Your task to perform on an android device: toggle location history Image 0: 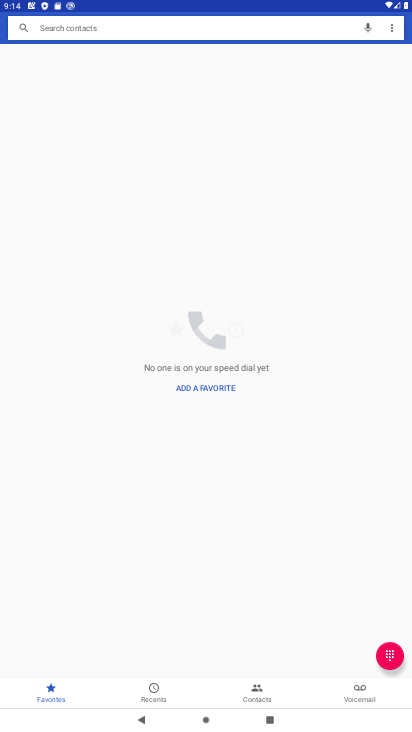
Step 0: press home button
Your task to perform on an android device: toggle location history Image 1: 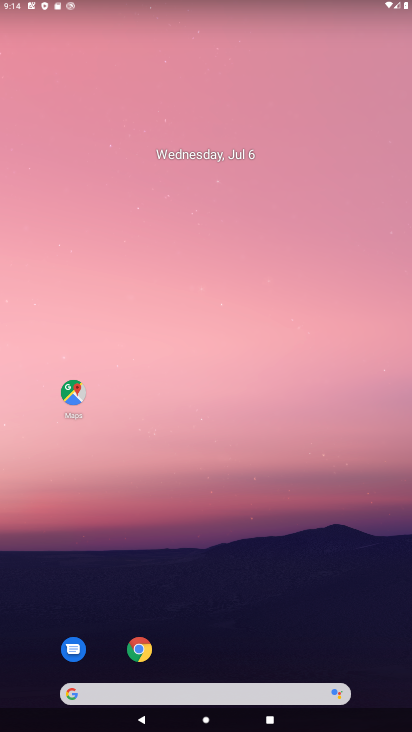
Step 1: drag from (221, 641) to (158, 192)
Your task to perform on an android device: toggle location history Image 2: 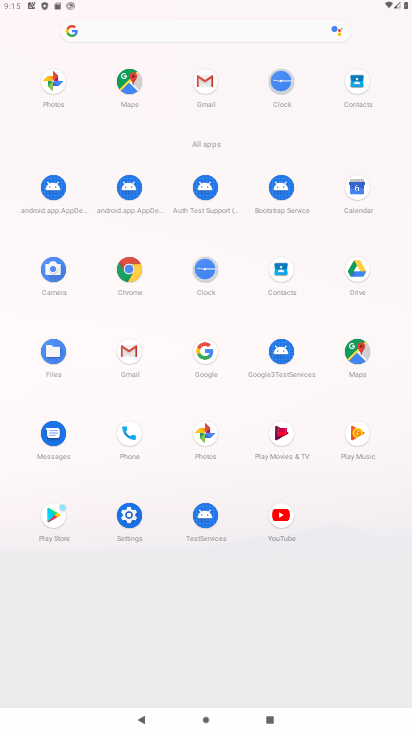
Step 2: click (130, 513)
Your task to perform on an android device: toggle location history Image 3: 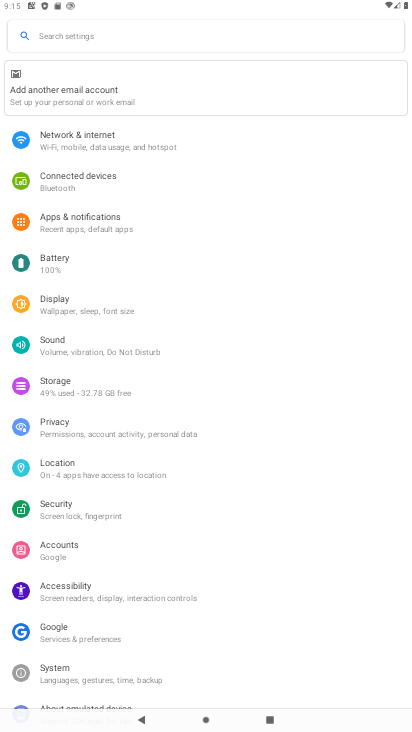
Step 3: click (55, 463)
Your task to perform on an android device: toggle location history Image 4: 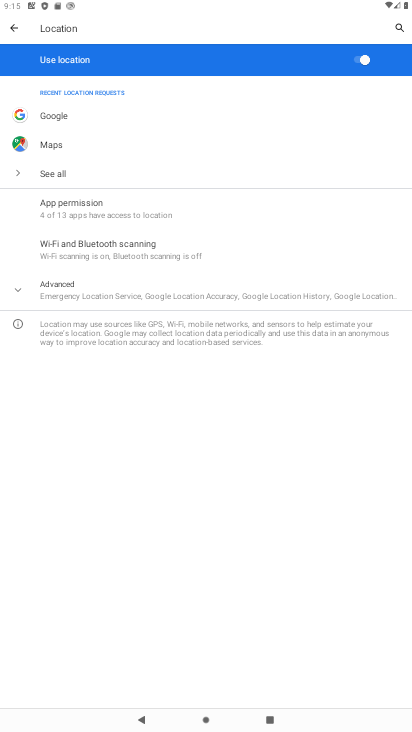
Step 4: click (138, 293)
Your task to perform on an android device: toggle location history Image 5: 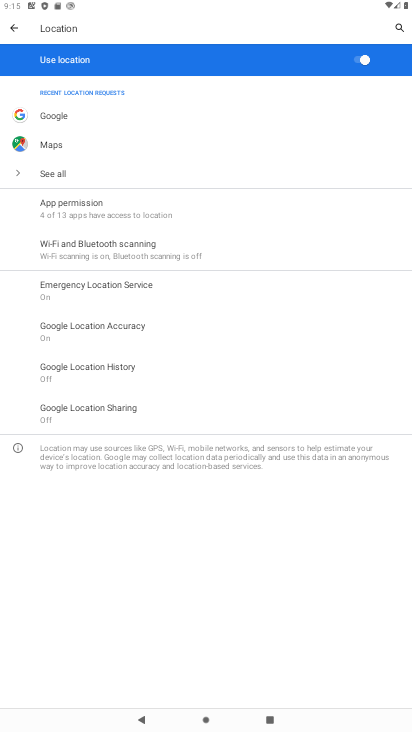
Step 5: click (121, 367)
Your task to perform on an android device: toggle location history Image 6: 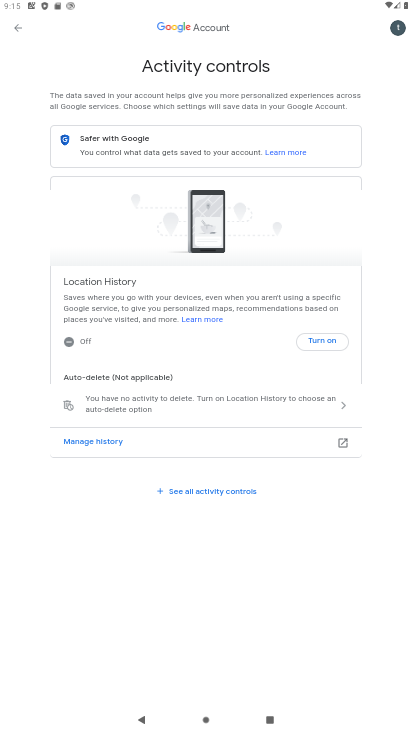
Step 6: click (330, 342)
Your task to perform on an android device: toggle location history Image 7: 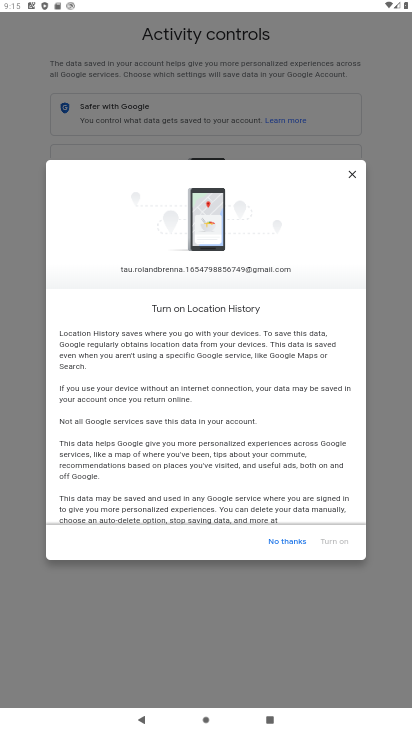
Step 7: drag from (267, 404) to (272, 324)
Your task to perform on an android device: toggle location history Image 8: 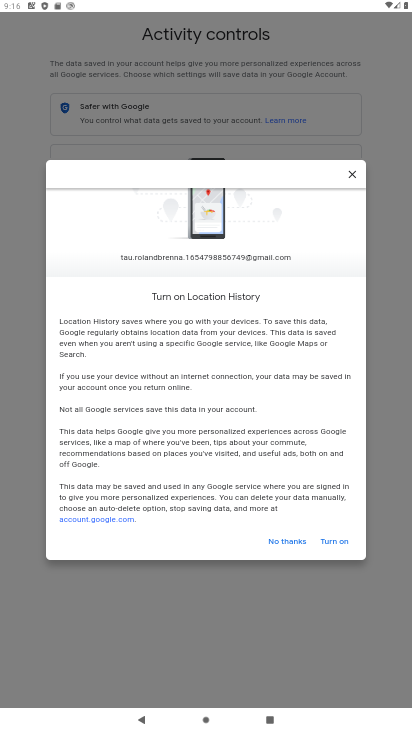
Step 8: click (215, 461)
Your task to perform on an android device: toggle location history Image 9: 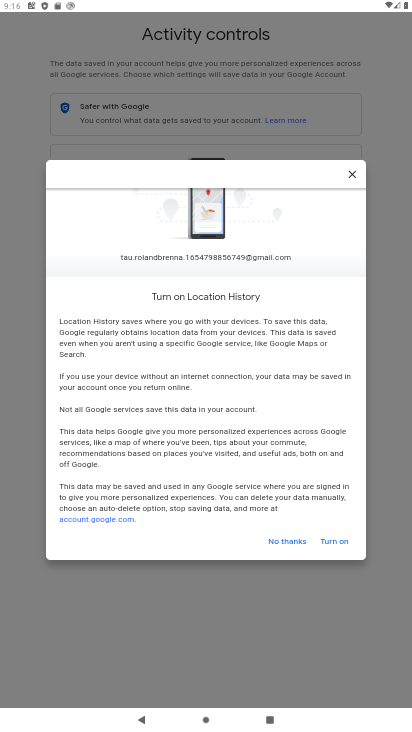
Step 9: click (332, 538)
Your task to perform on an android device: toggle location history Image 10: 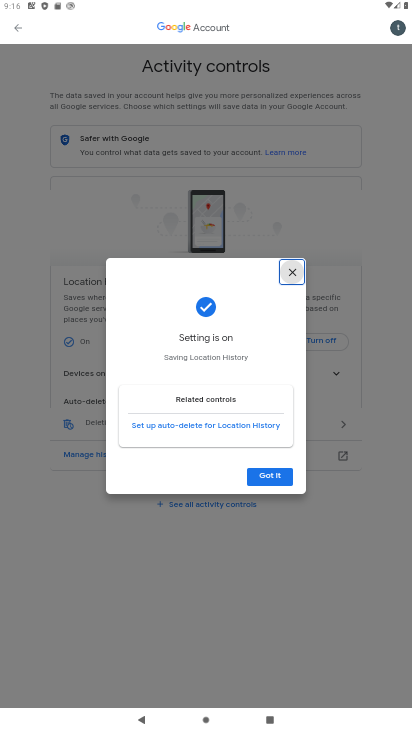
Step 10: click (278, 473)
Your task to perform on an android device: toggle location history Image 11: 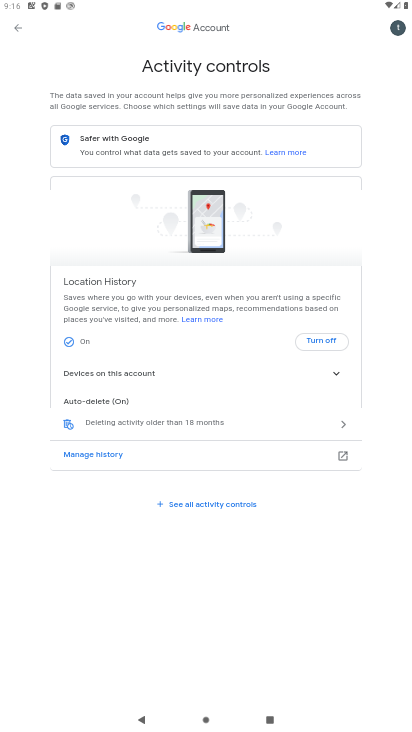
Step 11: task complete